Your task to perform on an android device: check the backup settings in the google photos Image 0: 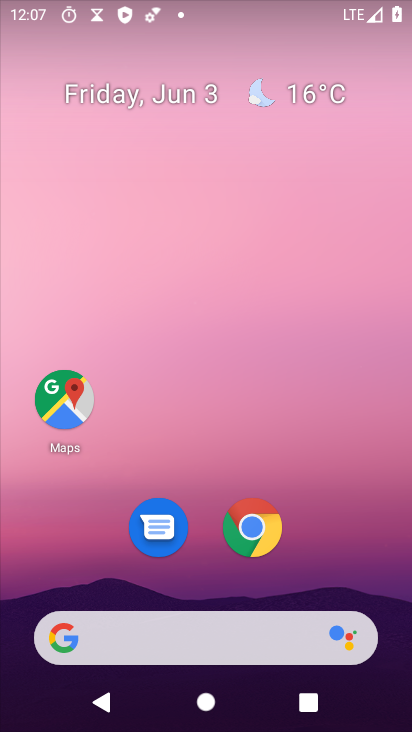
Step 0: drag from (206, 626) to (206, 140)
Your task to perform on an android device: check the backup settings in the google photos Image 1: 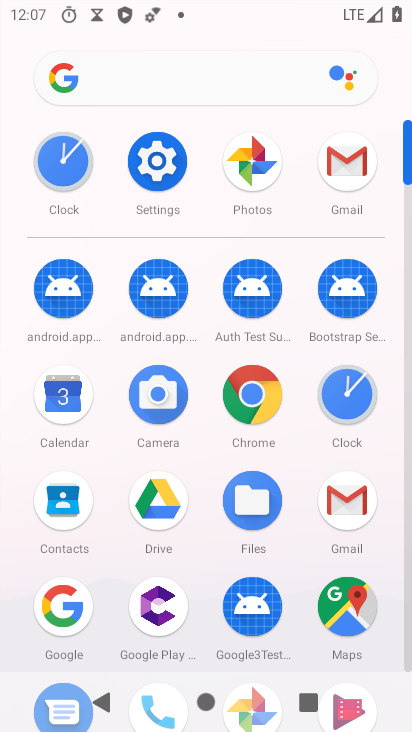
Step 1: click (248, 175)
Your task to perform on an android device: check the backup settings in the google photos Image 2: 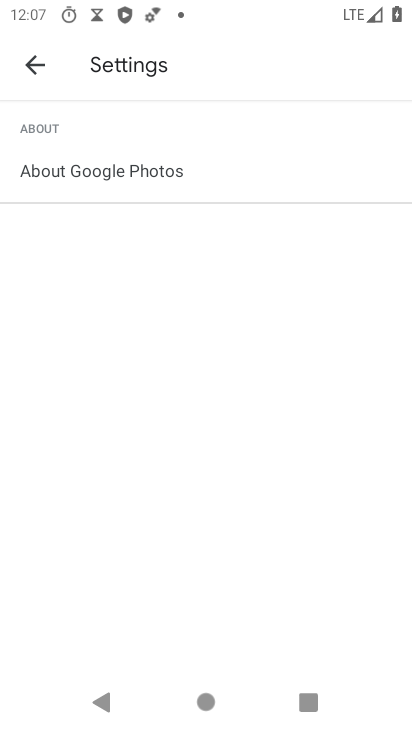
Step 2: click (34, 75)
Your task to perform on an android device: check the backup settings in the google photos Image 3: 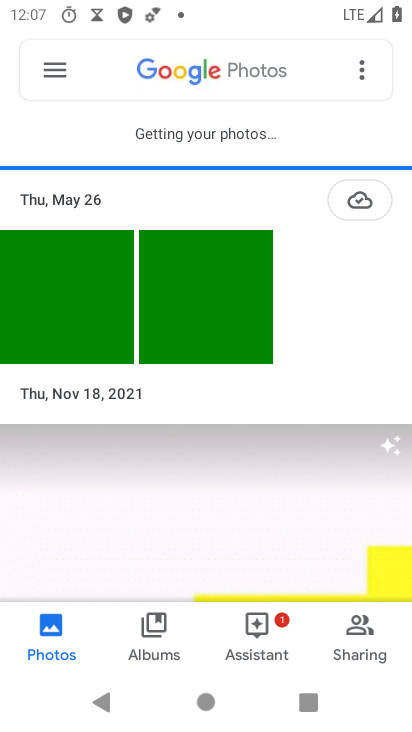
Step 3: click (60, 73)
Your task to perform on an android device: check the backup settings in the google photos Image 4: 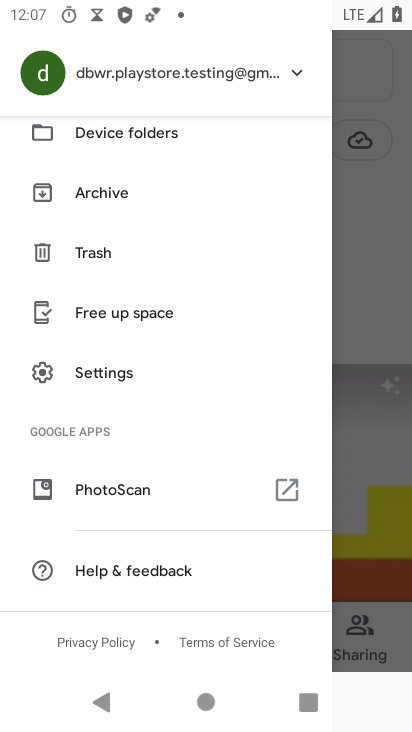
Step 4: drag from (156, 606) to (137, 375)
Your task to perform on an android device: check the backup settings in the google photos Image 5: 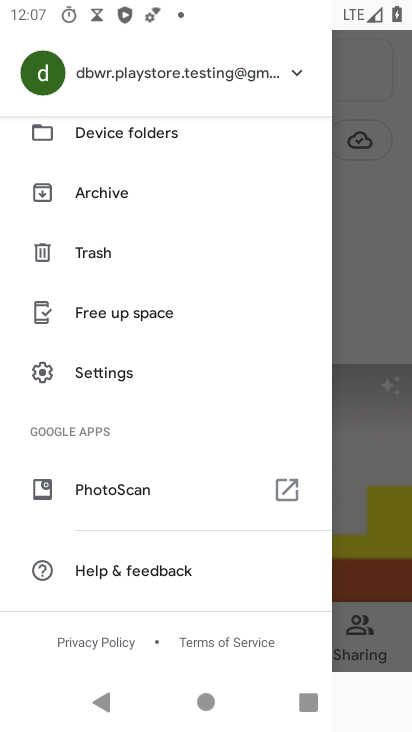
Step 5: click (115, 373)
Your task to perform on an android device: check the backup settings in the google photos Image 6: 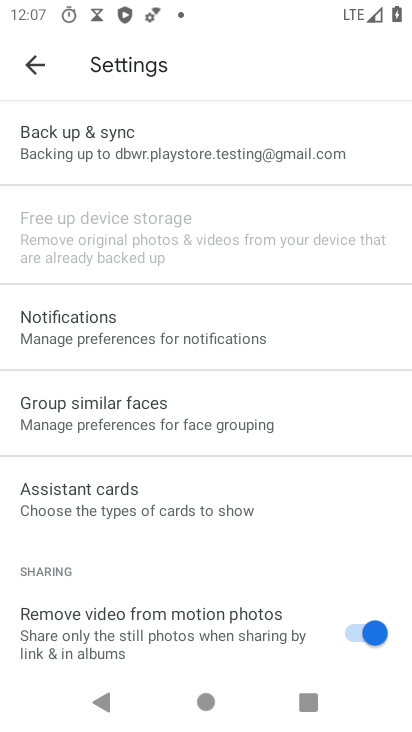
Step 6: click (108, 127)
Your task to perform on an android device: check the backup settings in the google photos Image 7: 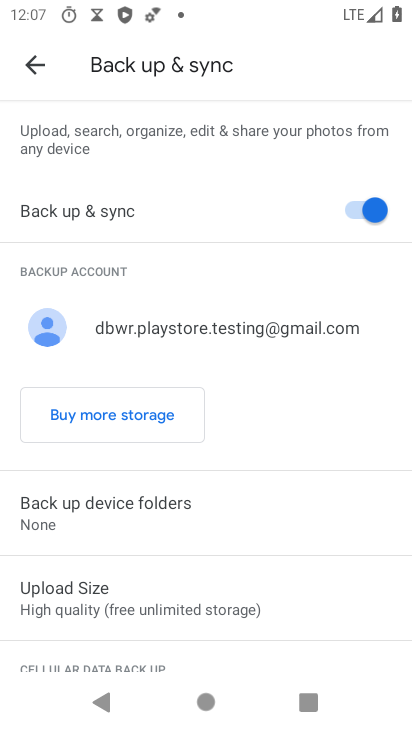
Step 7: task complete